Your task to perform on an android device: check google app version Image 0: 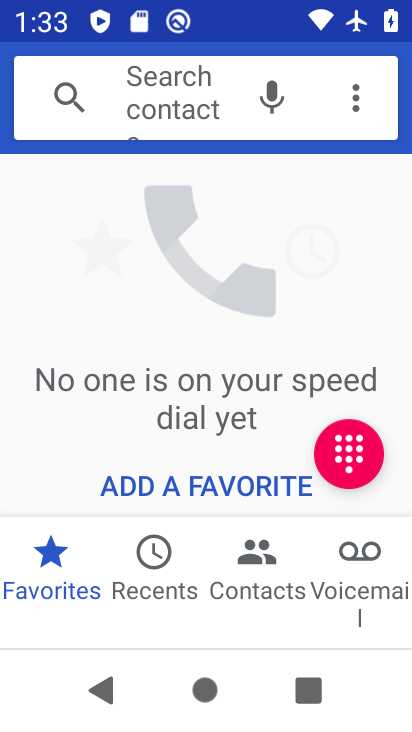
Step 0: press home button
Your task to perform on an android device: check google app version Image 1: 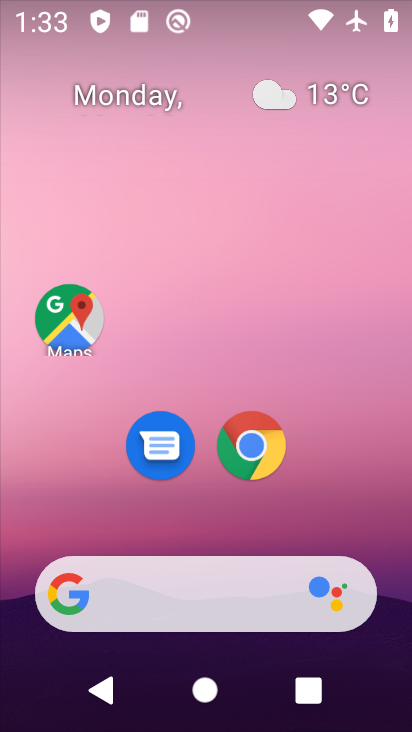
Step 1: drag from (402, 617) to (348, 165)
Your task to perform on an android device: check google app version Image 2: 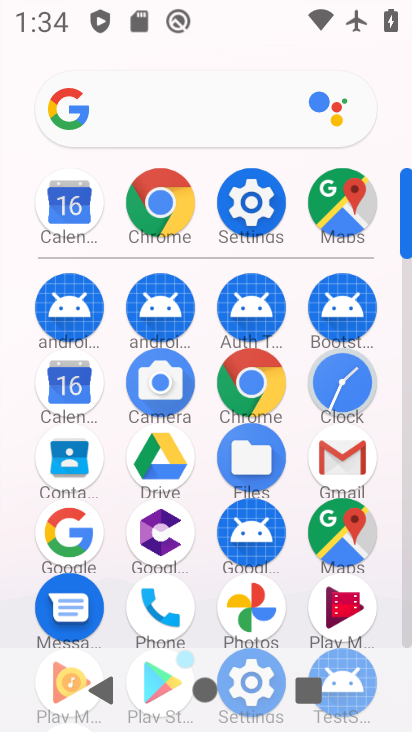
Step 2: click (79, 522)
Your task to perform on an android device: check google app version Image 3: 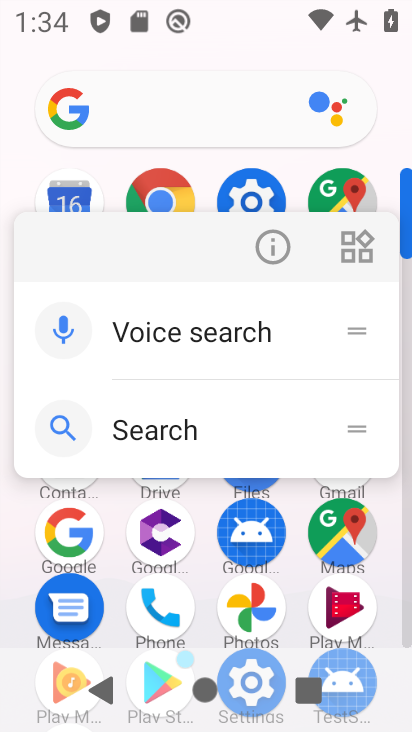
Step 3: click (276, 244)
Your task to perform on an android device: check google app version Image 4: 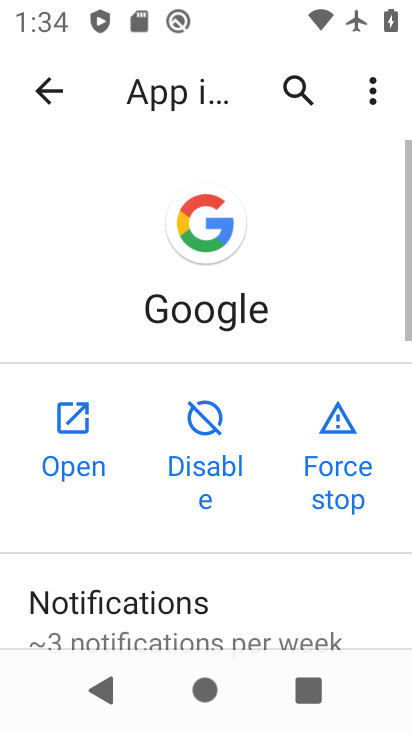
Step 4: drag from (225, 612) to (244, 74)
Your task to perform on an android device: check google app version Image 5: 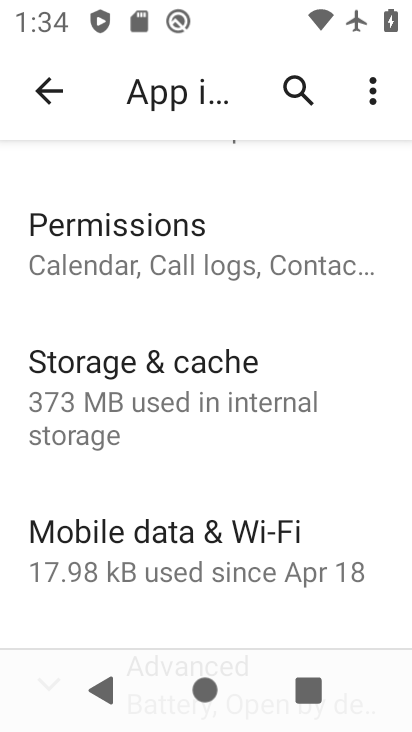
Step 5: drag from (138, 577) to (220, 133)
Your task to perform on an android device: check google app version Image 6: 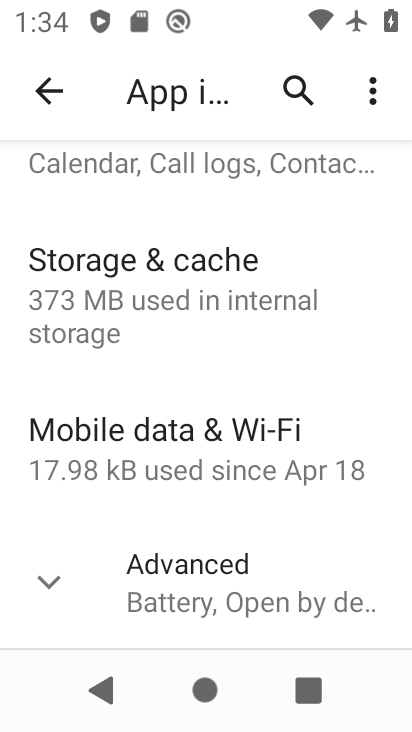
Step 6: click (46, 579)
Your task to perform on an android device: check google app version Image 7: 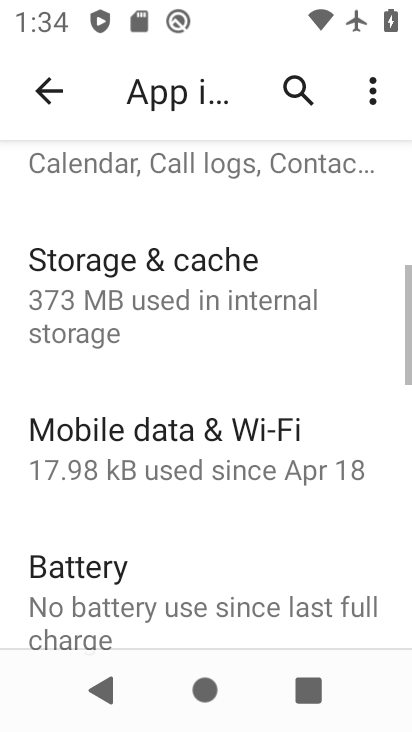
Step 7: task complete